Your task to perform on an android device: open app "Messenger Lite" Image 0: 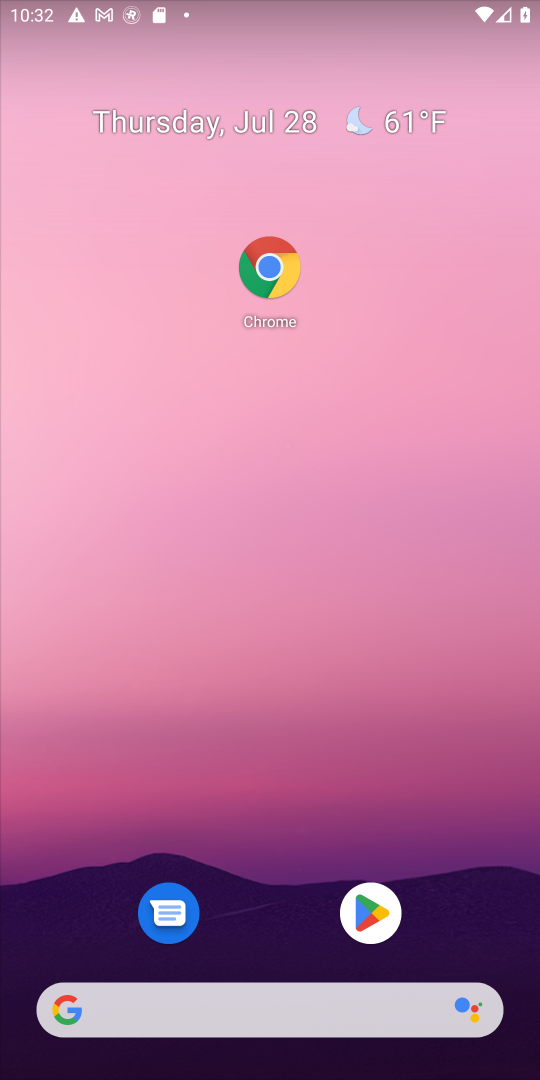
Step 0: press home button
Your task to perform on an android device: open app "Messenger Lite" Image 1: 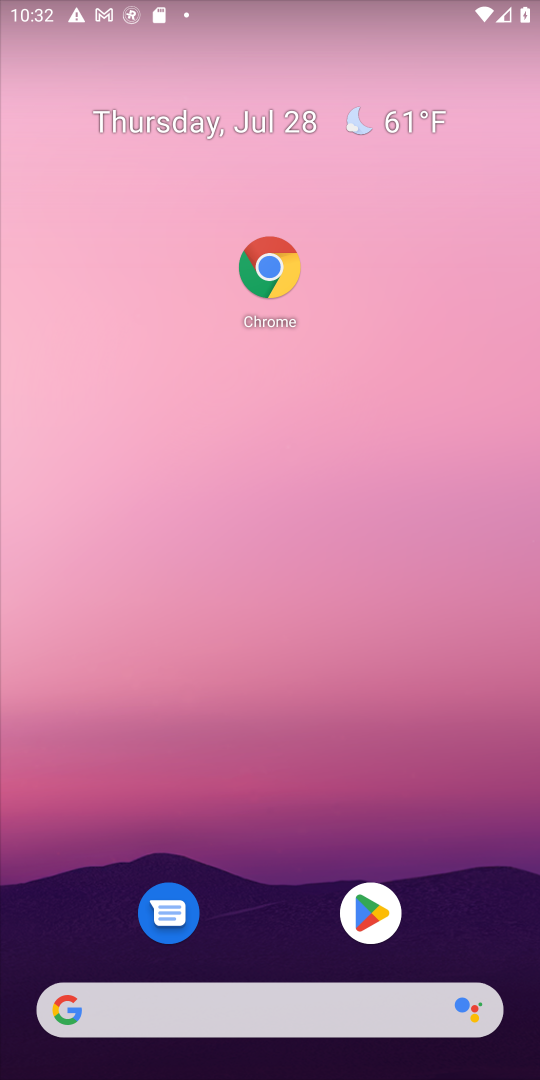
Step 1: click (379, 912)
Your task to perform on an android device: open app "Messenger Lite" Image 2: 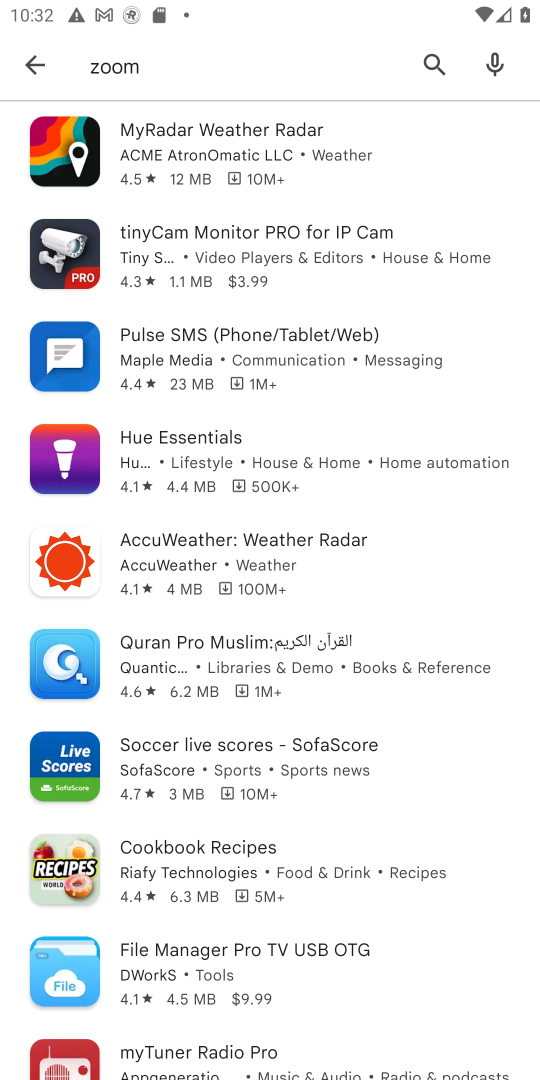
Step 2: click (432, 61)
Your task to perform on an android device: open app "Messenger Lite" Image 3: 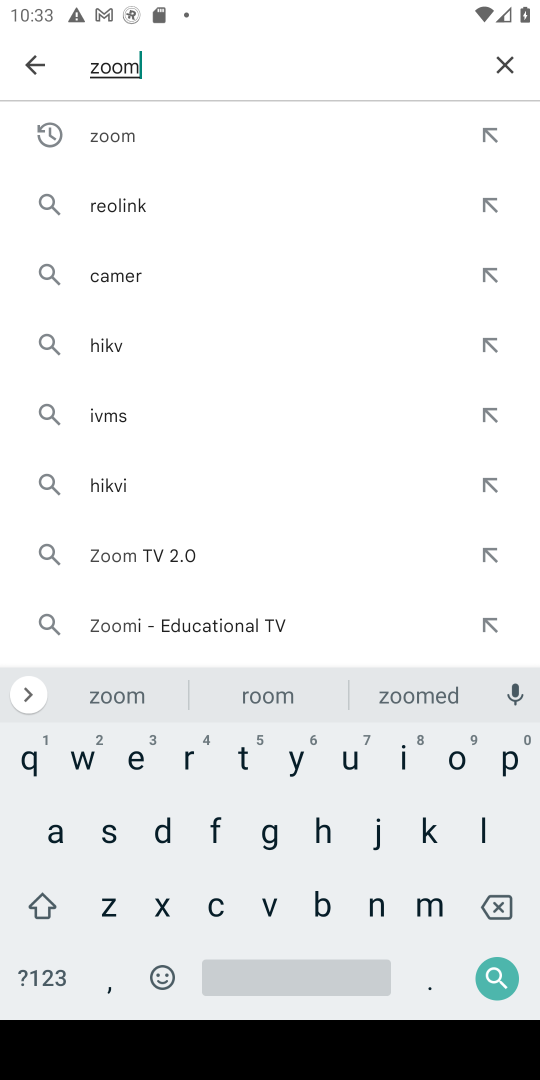
Step 3: click (517, 65)
Your task to perform on an android device: open app "Messenger Lite" Image 4: 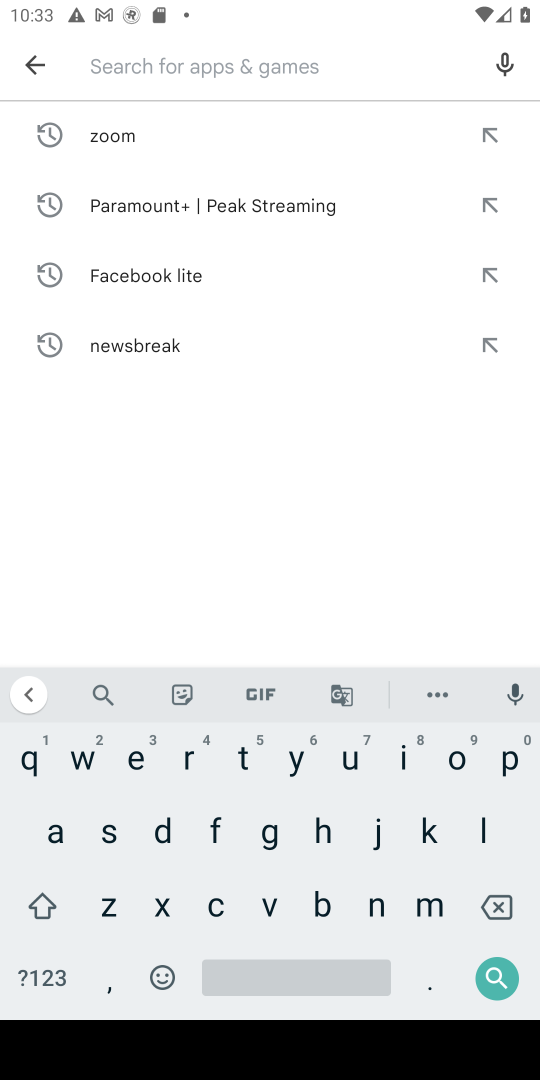
Step 4: type "messenger lite"
Your task to perform on an android device: open app "Messenger Lite" Image 5: 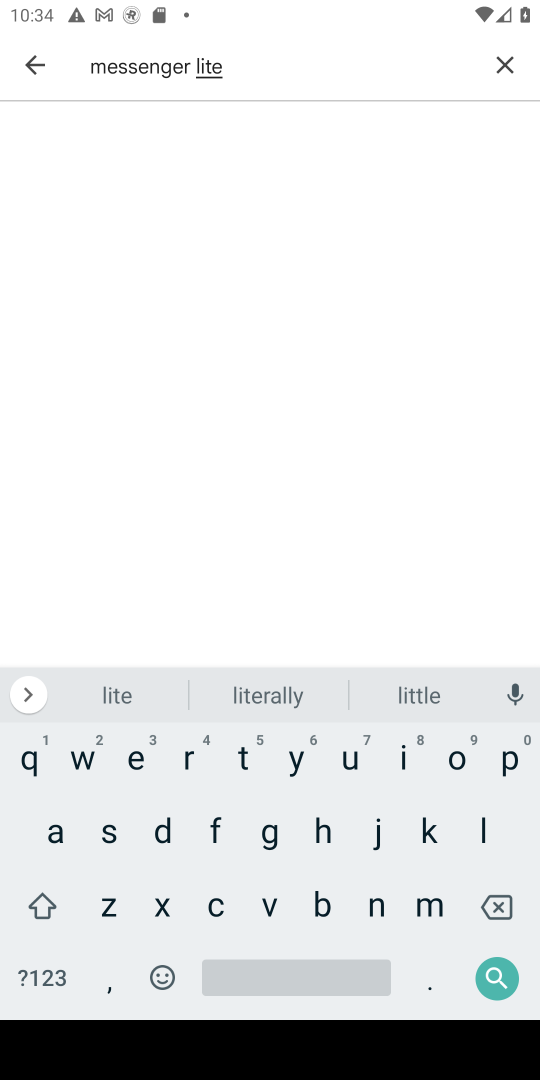
Step 5: click (494, 981)
Your task to perform on an android device: open app "Messenger Lite" Image 6: 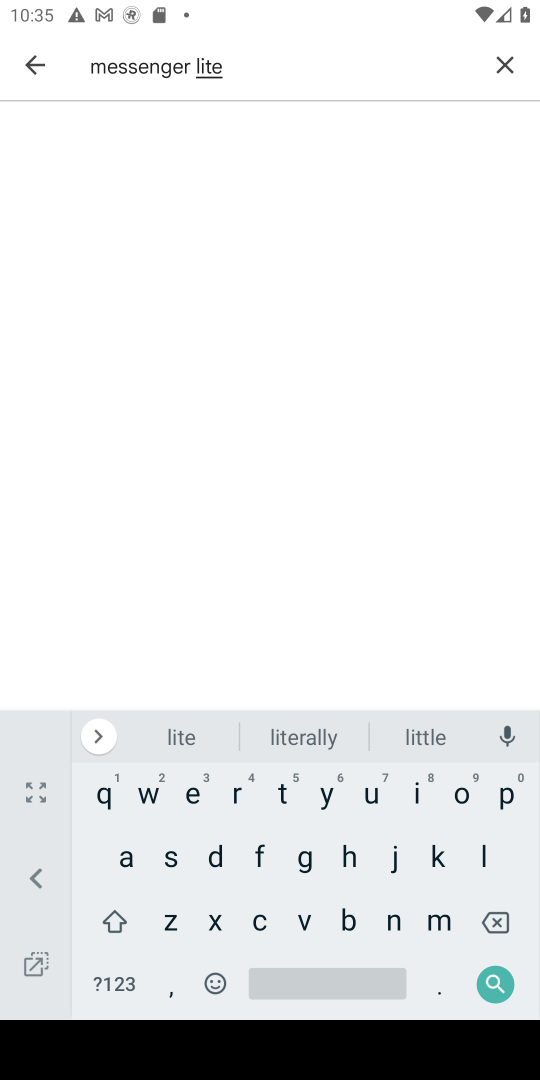
Step 6: click (524, 985)
Your task to perform on an android device: open app "Messenger Lite" Image 7: 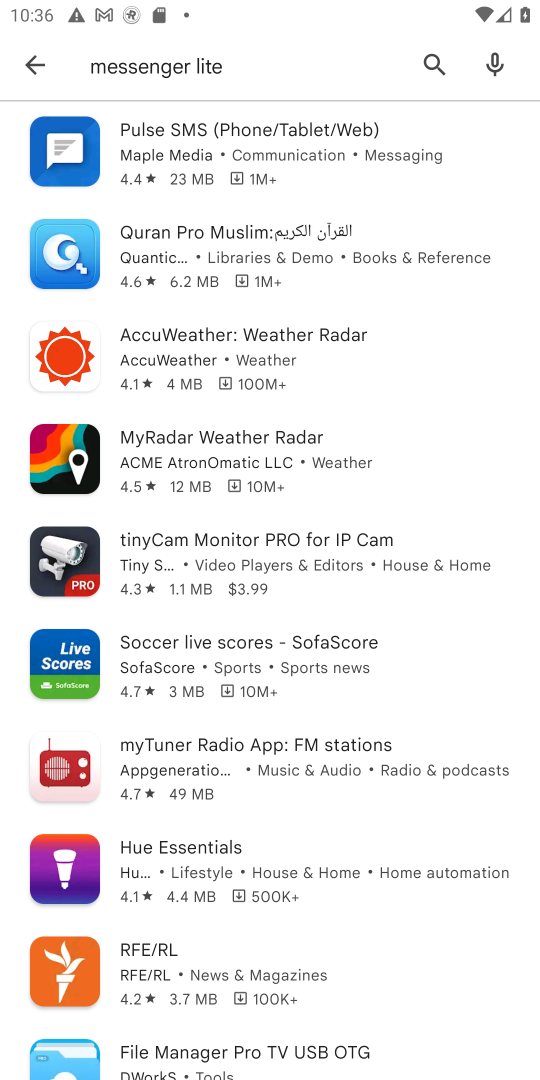
Step 7: task complete